Your task to perform on an android device: Do I have any events this weekend? Image 0: 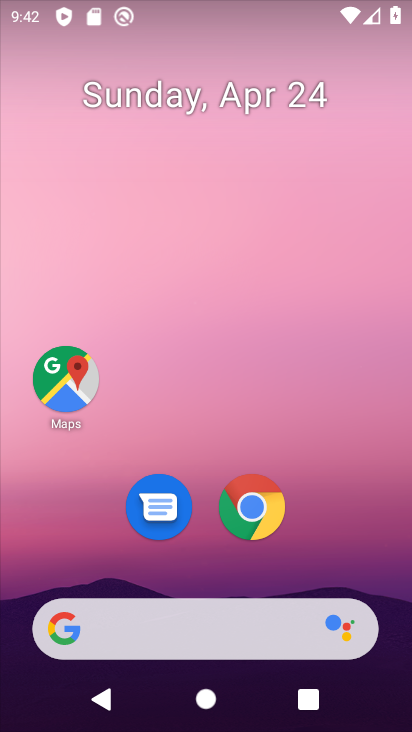
Step 0: drag from (111, 490) to (210, 62)
Your task to perform on an android device: Do I have any events this weekend? Image 1: 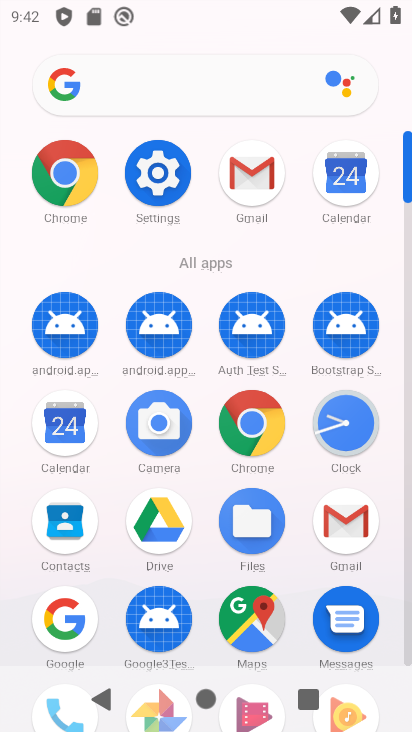
Step 1: click (344, 175)
Your task to perform on an android device: Do I have any events this weekend? Image 2: 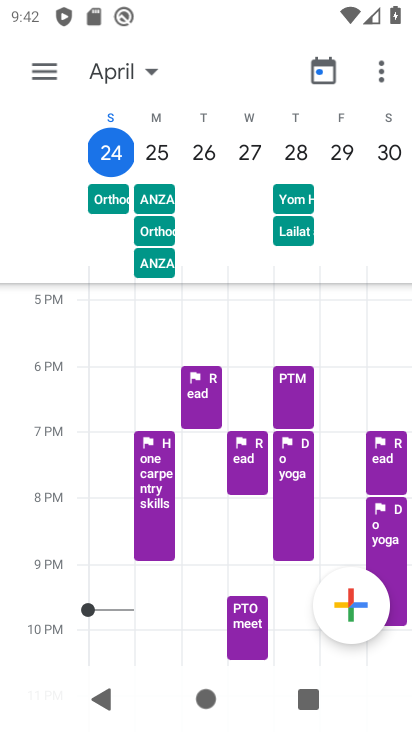
Step 2: click (45, 63)
Your task to perform on an android device: Do I have any events this weekend? Image 3: 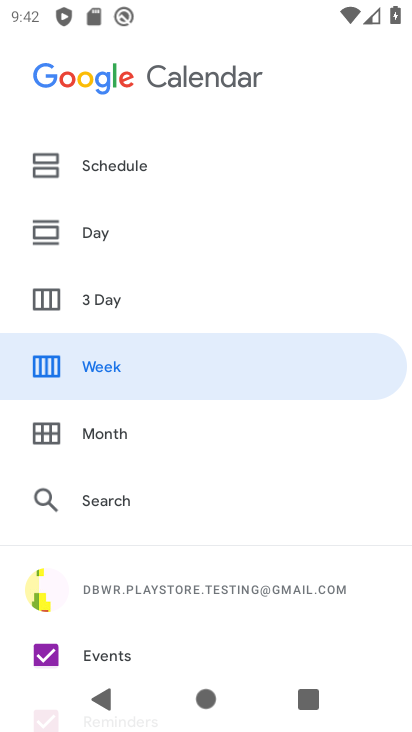
Step 3: drag from (181, 599) to (264, 222)
Your task to perform on an android device: Do I have any events this weekend? Image 4: 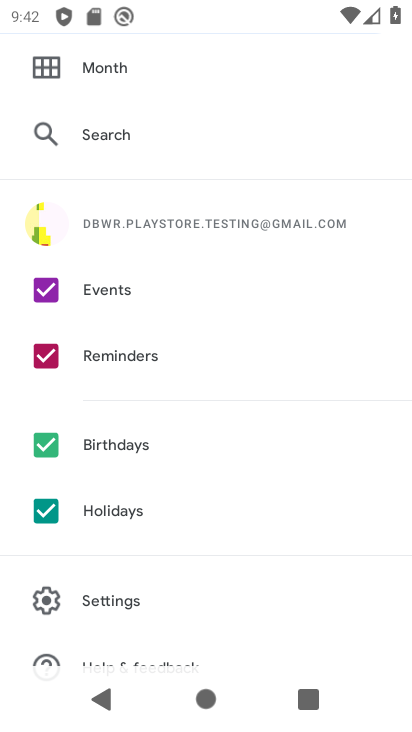
Step 4: click (155, 357)
Your task to perform on an android device: Do I have any events this weekend? Image 5: 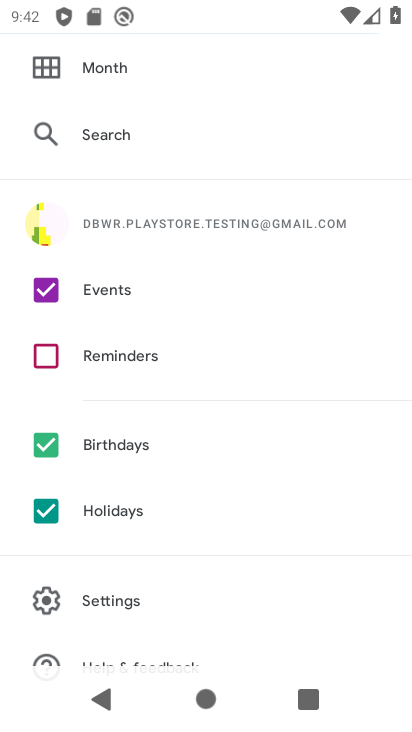
Step 5: click (38, 453)
Your task to perform on an android device: Do I have any events this weekend? Image 6: 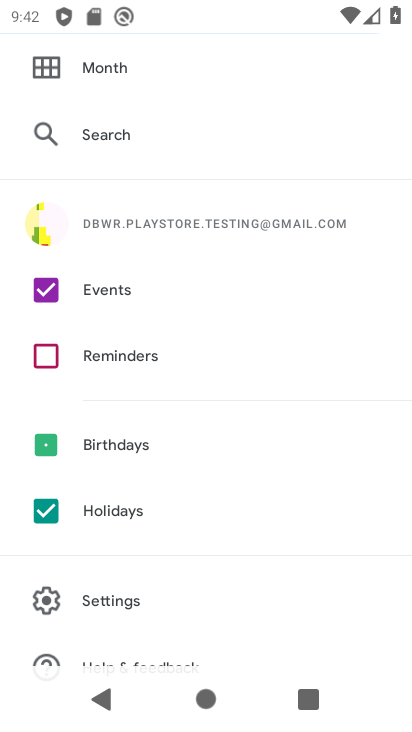
Step 6: click (41, 510)
Your task to perform on an android device: Do I have any events this weekend? Image 7: 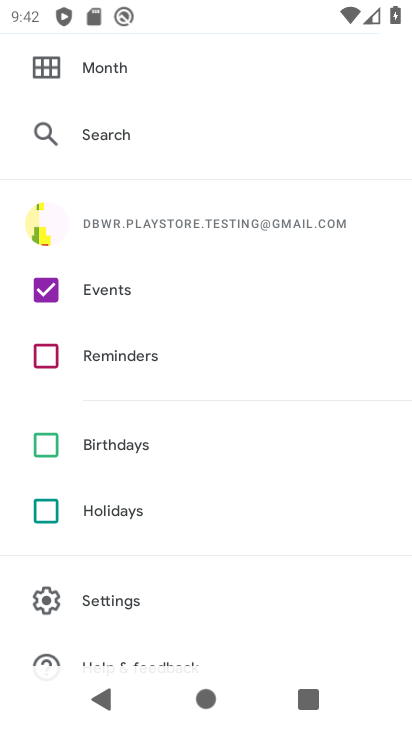
Step 7: task complete